Your task to perform on an android device: What's the weather? Image 0: 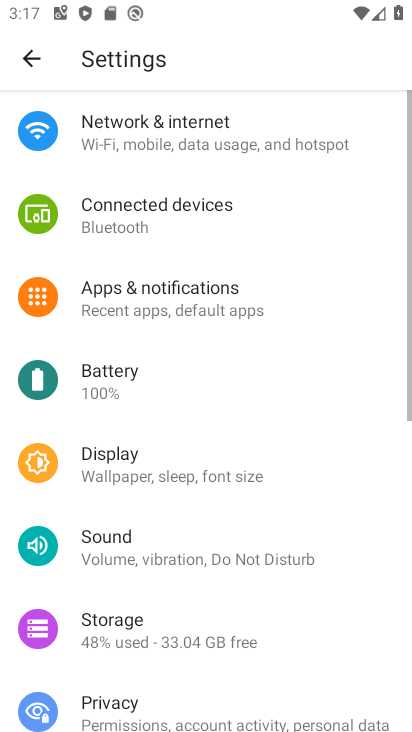
Step 0: press back button
Your task to perform on an android device: What's the weather? Image 1: 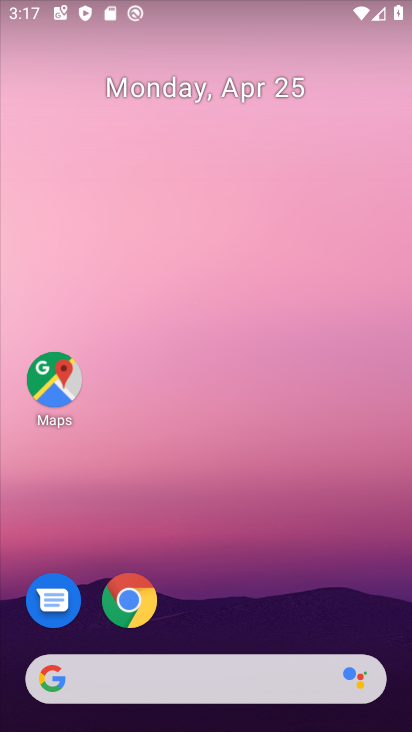
Step 1: drag from (340, 544) to (335, 44)
Your task to perform on an android device: What's the weather? Image 2: 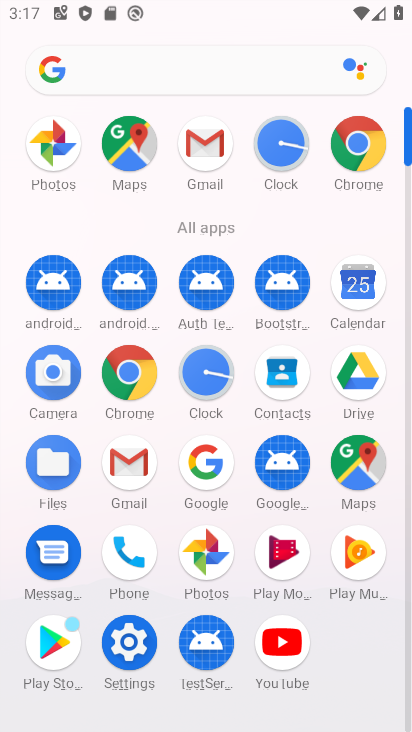
Step 2: click (118, 78)
Your task to perform on an android device: What's the weather? Image 3: 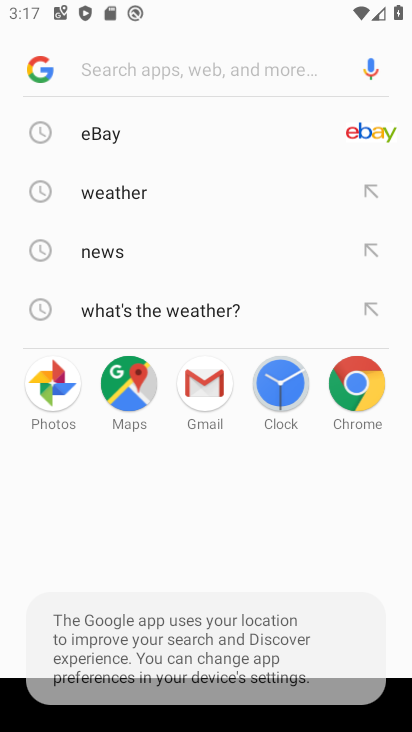
Step 3: click (151, 190)
Your task to perform on an android device: What's the weather? Image 4: 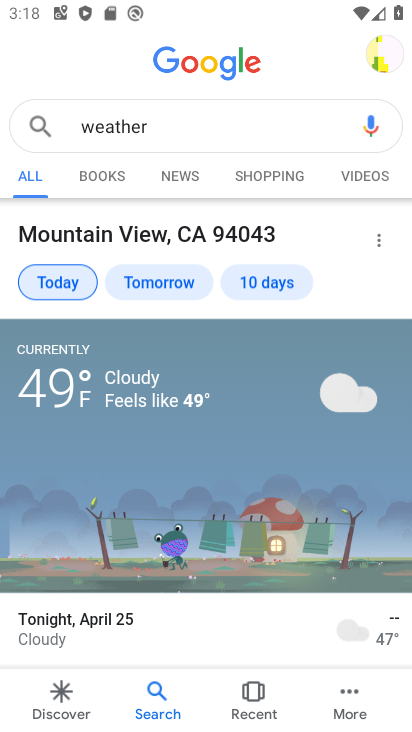
Step 4: task complete